Your task to perform on an android device: see sites visited before in the chrome app Image 0: 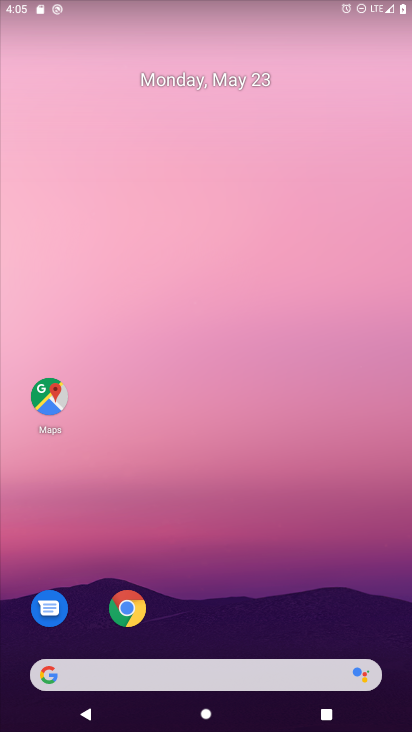
Step 0: click (127, 608)
Your task to perform on an android device: see sites visited before in the chrome app Image 1: 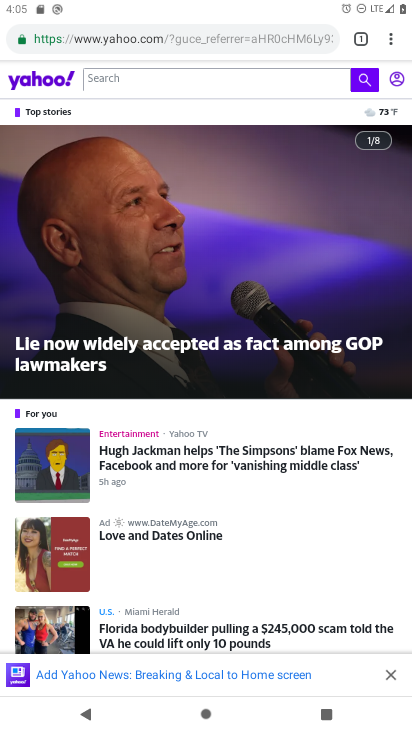
Step 1: click (391, 38)
Your task to perform on an android device: see sites visited before in the chrome app Image 2: 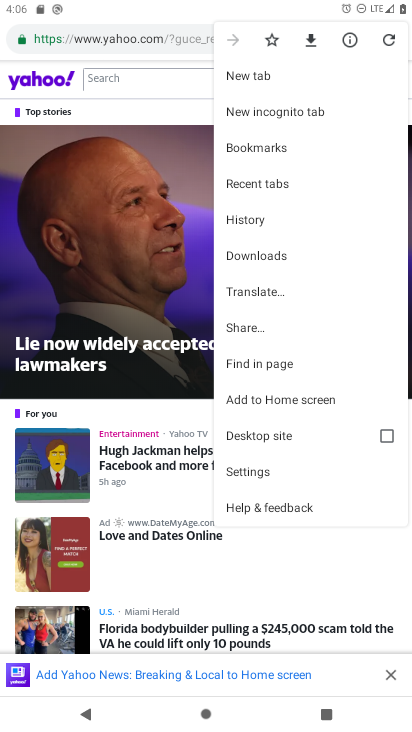
Step 2: click (256, 220)
Your task to perform on an android device: see sites visited before in the chrome app Image 3: 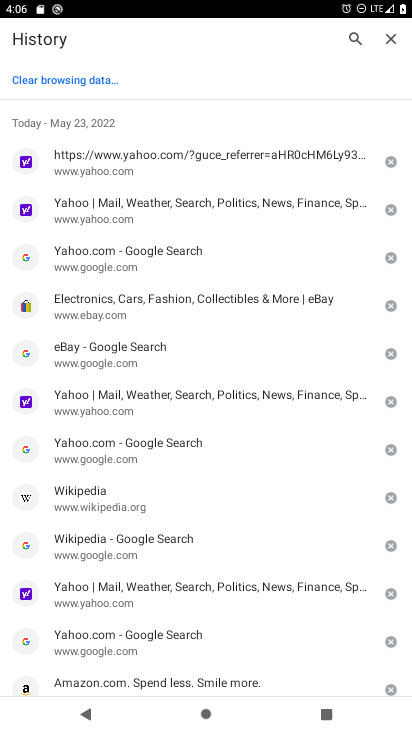
Step 3: task complete